Your task to perform on an android device: Go to location settings Image 0: 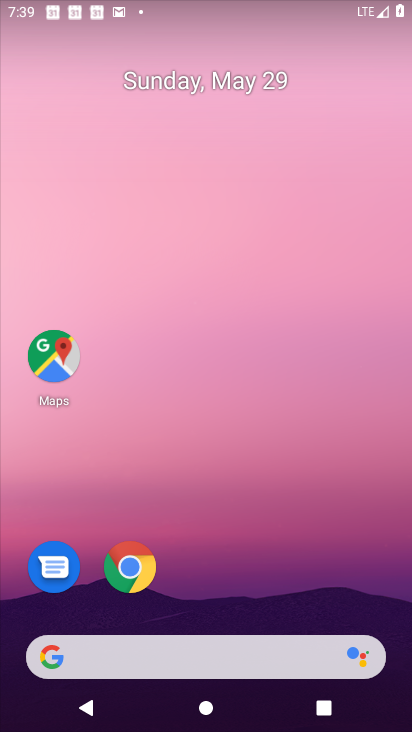
Step 0: drag from (200, 603) to (259, 305)
Your task to perform on an android device: Go to location settings Image 1: 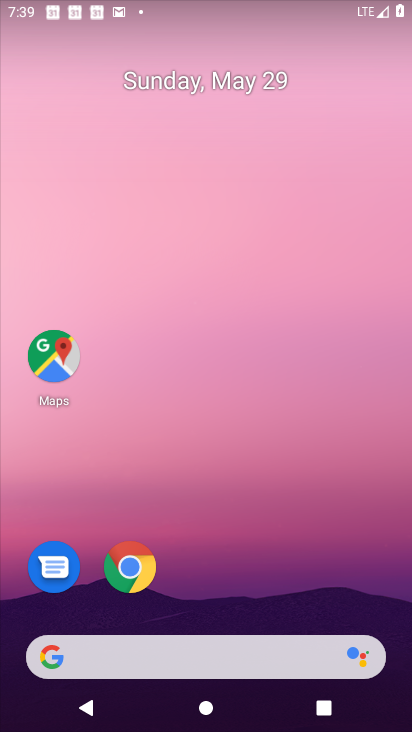
Step 1: drag from (196, 600) to (266, 183)
Your task to perform on an android device: Go to location settings Image 2: 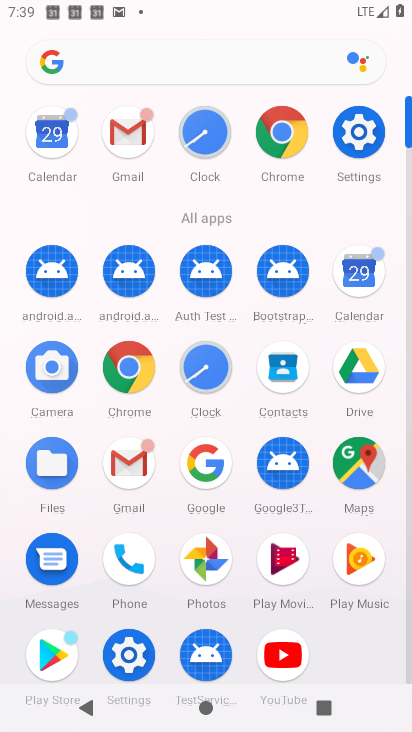
Step 2: click (356, 115)
Your task to perform on an android device: Go to location settings Image 3: 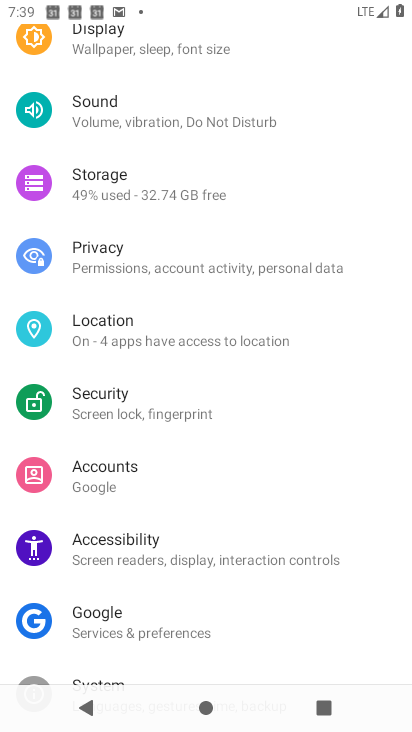
Step 3: click (187, 324)
Your task to perform on an android device: Go to location settings Image 4: 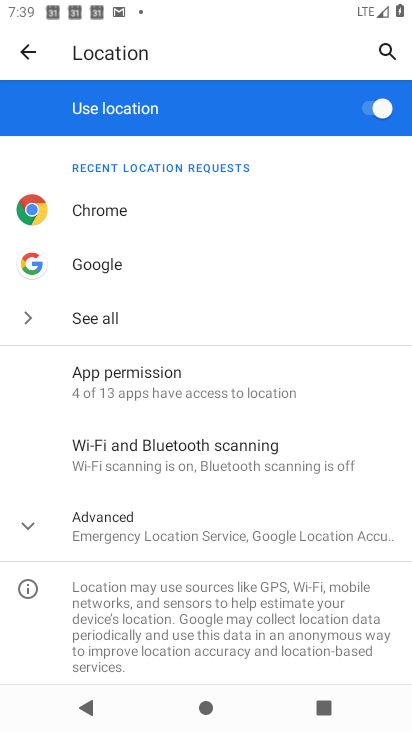
Step 4: task complete